Your task to perform on an android device: open chrome privacy settings Image 0: 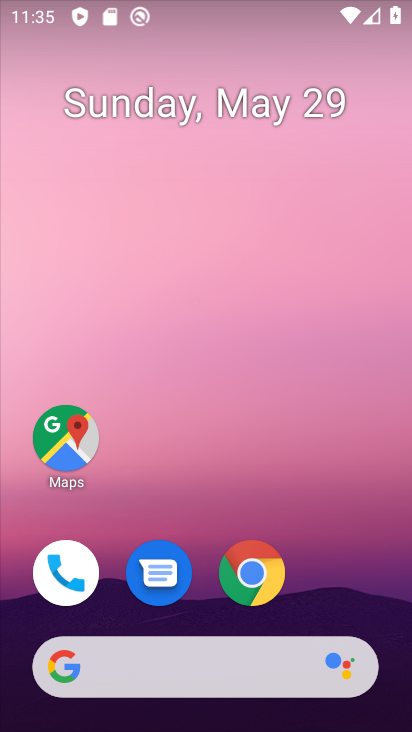
Step 0: click (243, 567)
Your task to perform on an android device: open chrome privacy settings Image 1: 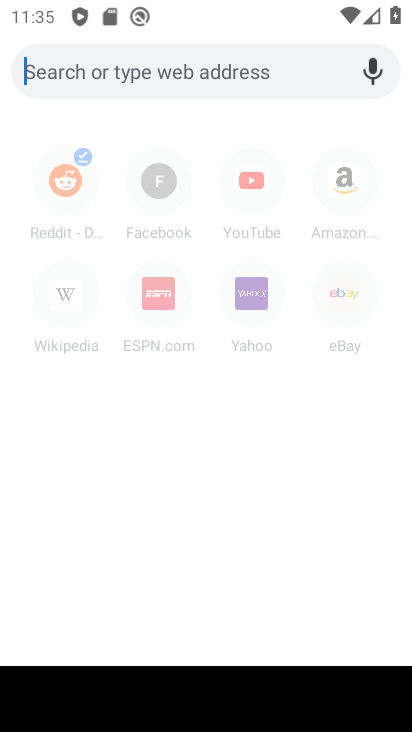
Step 1: click (250, 66)
Your task to perform on an android device: open chrome privacy settings Image 2: 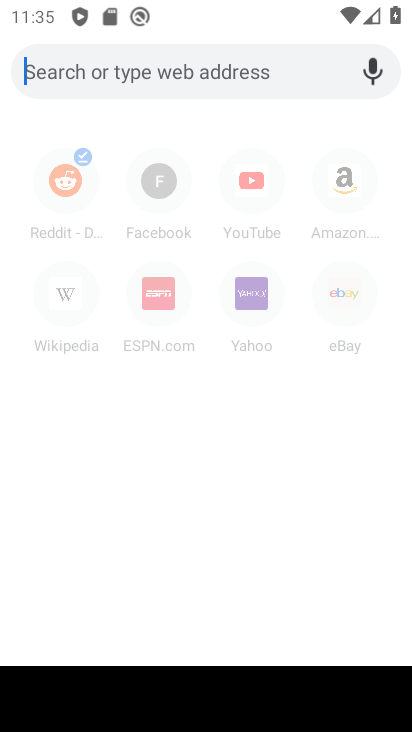
Step 2: click (286, 67)
Your task to perform on an android device: open chrome privacy settings Image 3: 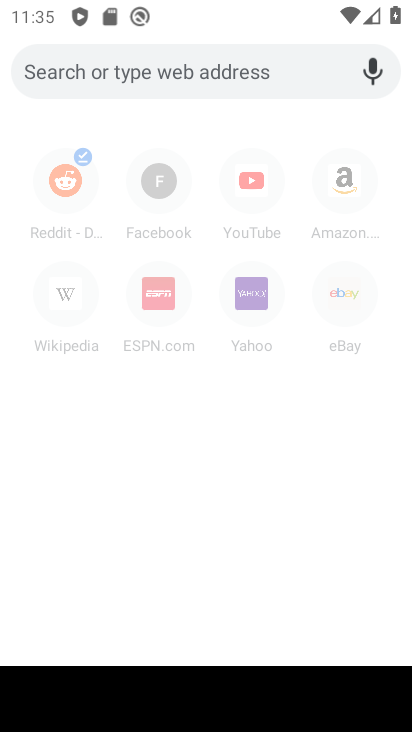
Step 3: click (287, 66)
Your task to perform on an android device: open chrome privacy settings Image 4: 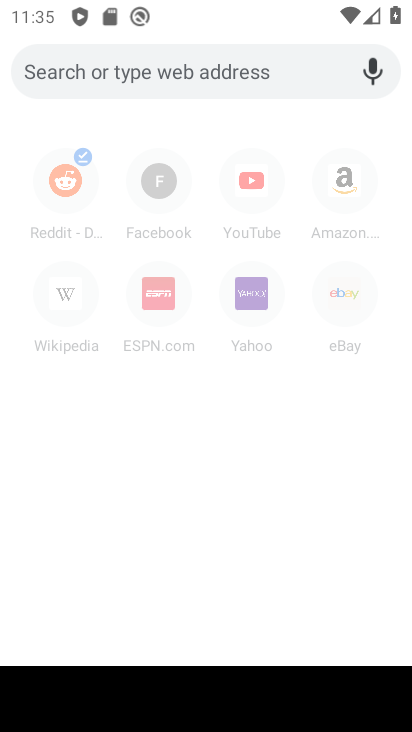
Step 4: press back button
Your task to perform on an android device: open chrome privacy settings Image 5: 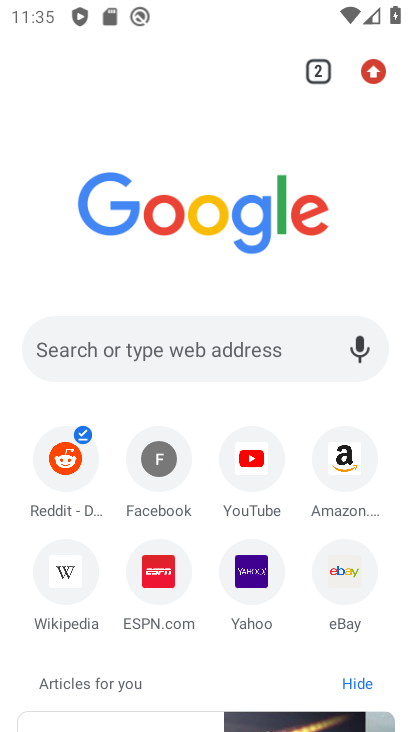
Step 5: drag from (378, 71) to (106, 576)
Your task to perform on an android device: open chrome privacy settings Image 6: 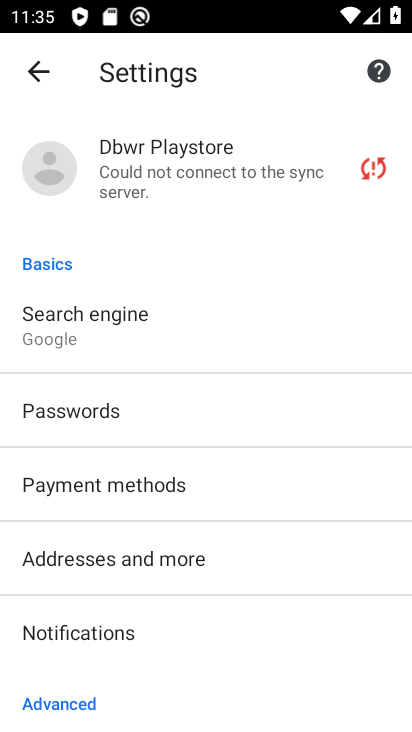
Step 6: drag from (253, 666) to (254, 125)
Your task to perform on an android device: open chrome privacy settings Image 7: 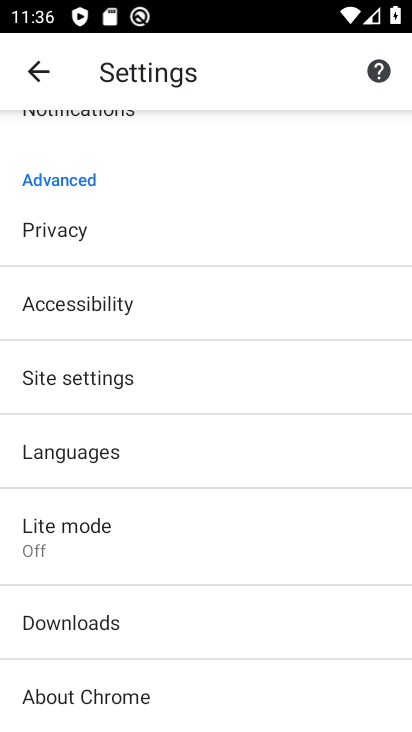
Step 7: click (118, 233)
Your task to perform on an android device: open chrome privacy settings Image 8: 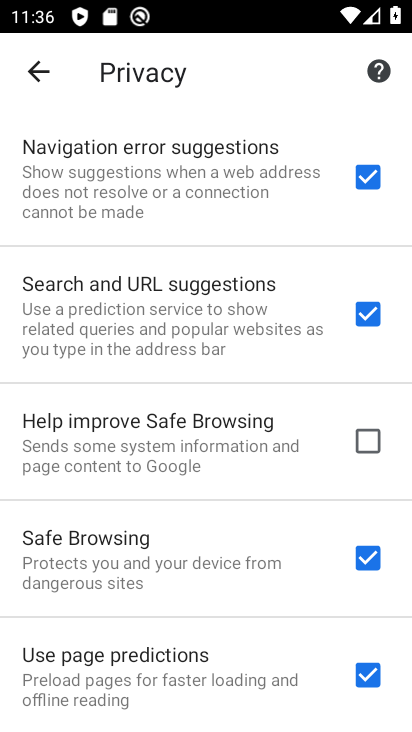
Step 8: task complete